Your task to perform on an android device: Open wifi settings Image 0: 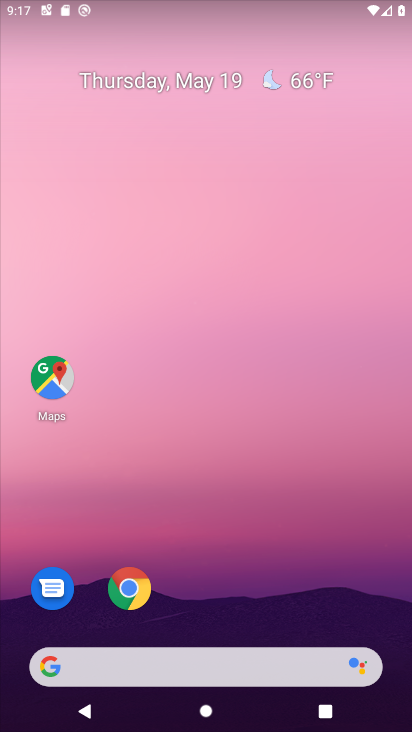
Step 0: drag from (358, 609) to (352, 119)
Your task to perform on an android device: Open wifi settings Image 1: 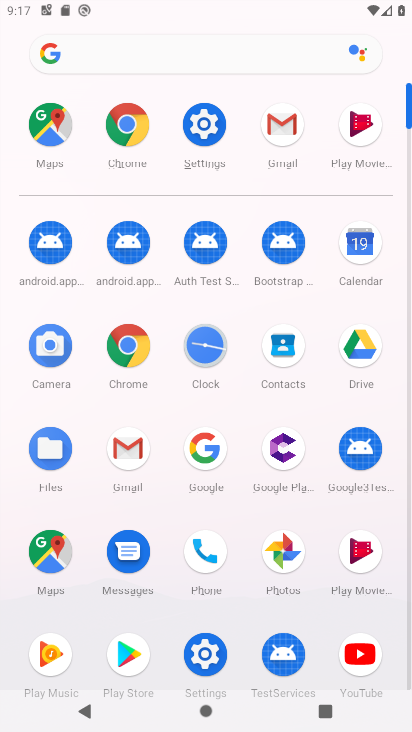
Step 1: click (204, 117)
Your task to perform on an android device: Open wifi settings Image 2: 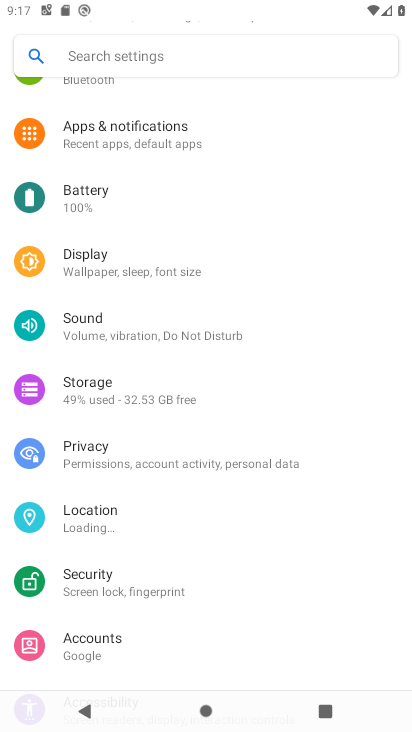
Step 2: drag from (310, 583) to (306, 428)
Your task to perform on an android device: Open wifi settings Image 3: 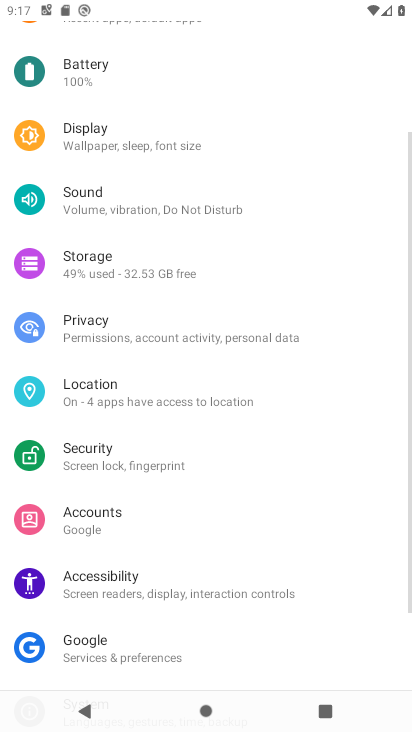
Step 3: drag from (331, 610) to (321, 457)
Your task to perform on an android device: Open wifi settings Image 4: 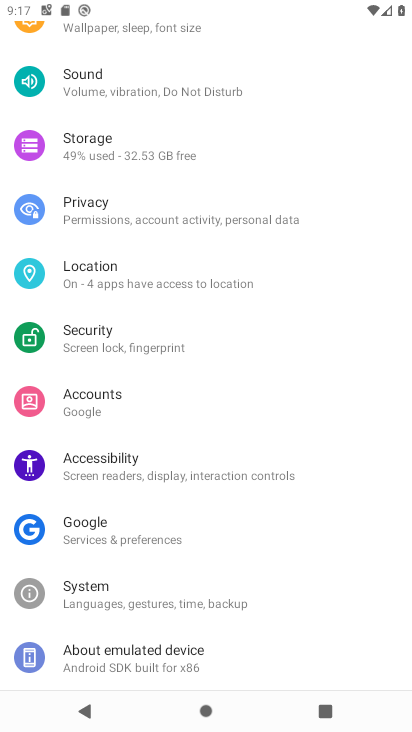
Step 4: drag from (326, 617) to (335, 457)
Your task to perform on an android device: Open wifi settings Image 5: 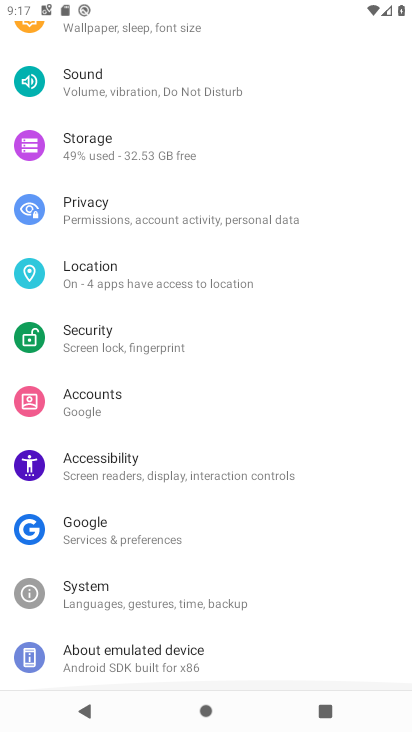
Step 5: drag from (339, 338) to (320, 445)
Your task to perform on an android device: Open wifi settings Image 6: 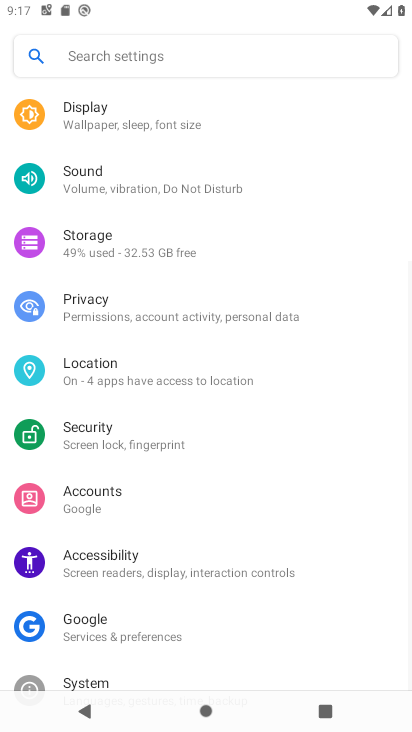
Step 6: drag from (335, 333) to (314, 452)
Your task to perform on an android device: Open wifi settings Image 7: 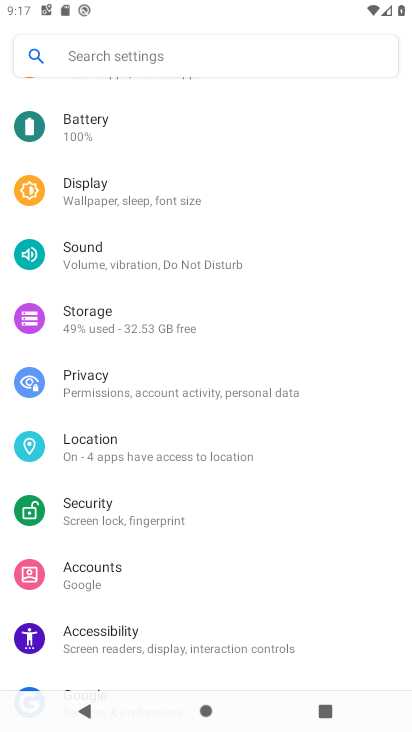
Step 7: drag from (342, 331) to (333, 444)
Your task to perform on an android device: Open wifi settings Image 8: 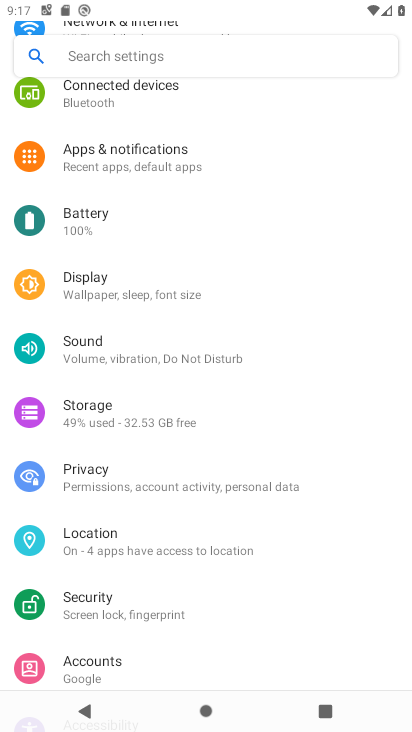
Step 8: drag from (336, 321) to (323, 460)
Your task to perform on an android device: Open wifi settings Image 9: 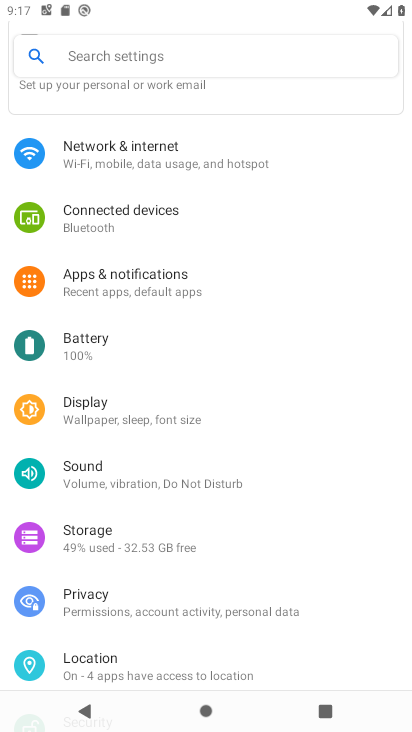
Step 9: drag from (327, 299) to (324, 396)
Your task to perform on an android device: Open wifi settings Image 10: 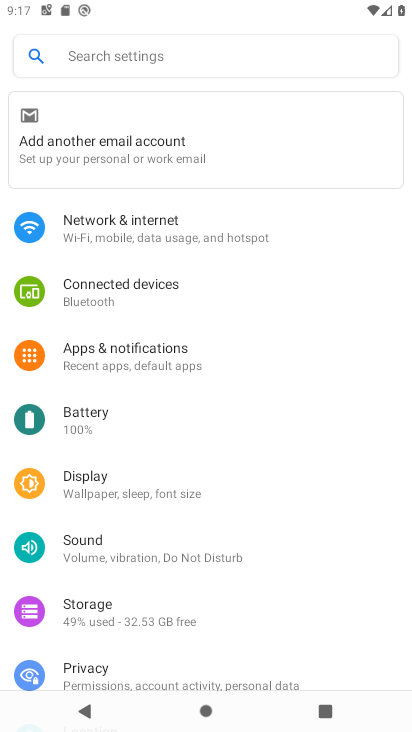
Step 10: drag from (325, 305) to (329, 416)
Your task to perform on an android device: Open wifi settings Image 11: 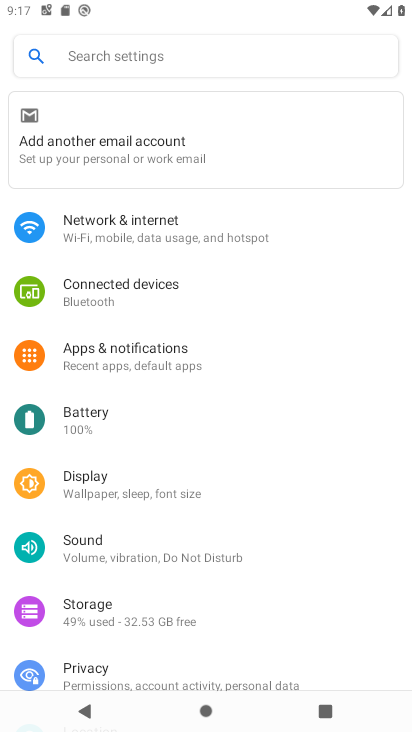
Step 11: click (220, 232)
Your task to perform on an android device: Open wifi settings Image 12: 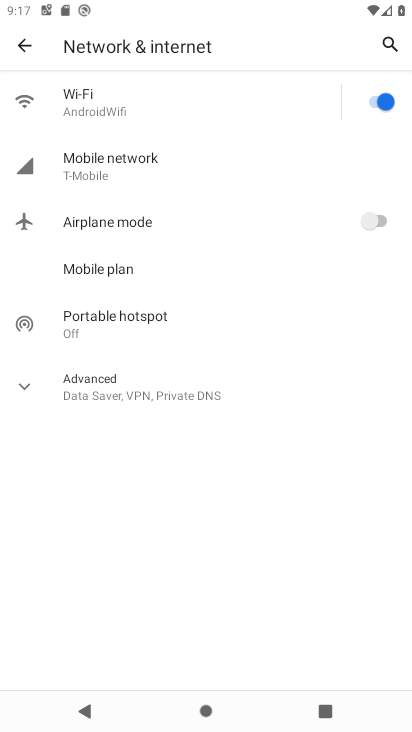
Step 12: click (155, 110)
Your task to perform on an android device: Open wifi settings Image 13: 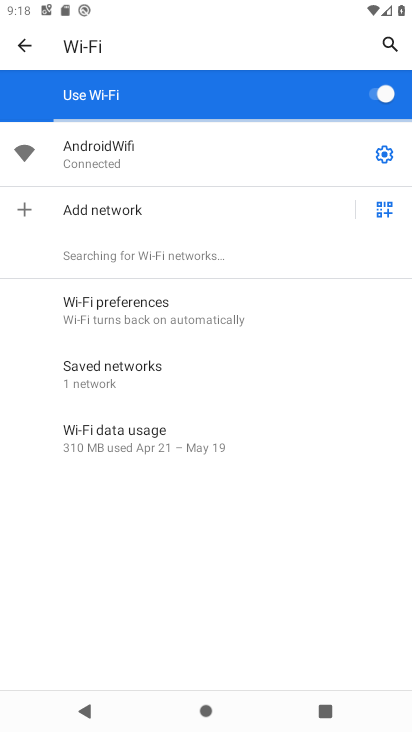
Step 13: task complete